Your task to perform on an android device: search for starred emails in the gmail app Image 0: 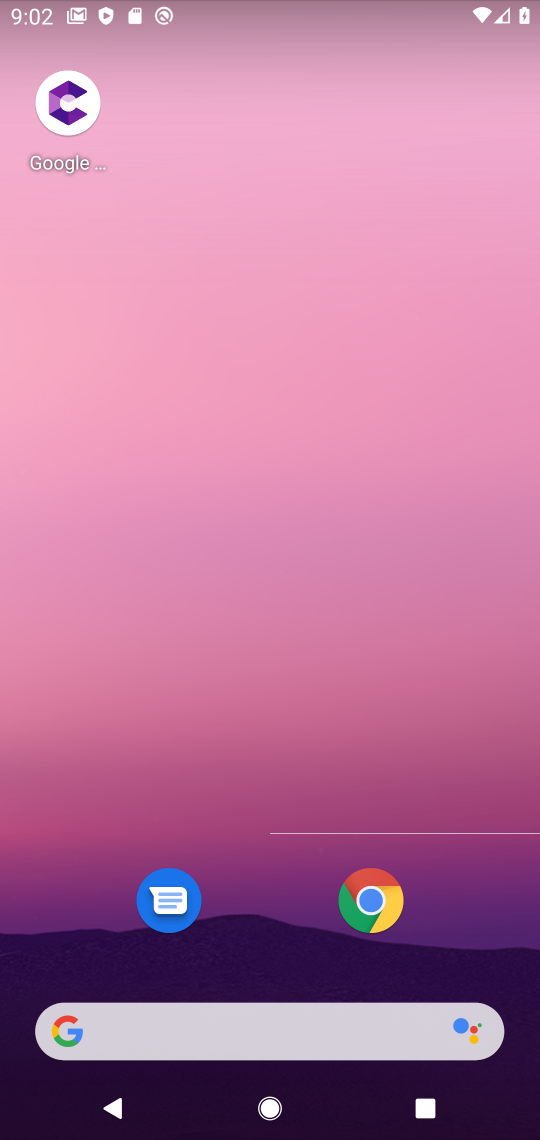
Step 0: drag from (244, 913) to (253, 295)
Your task to perform on an android device: search for starred emails in the gmail app Image 1: 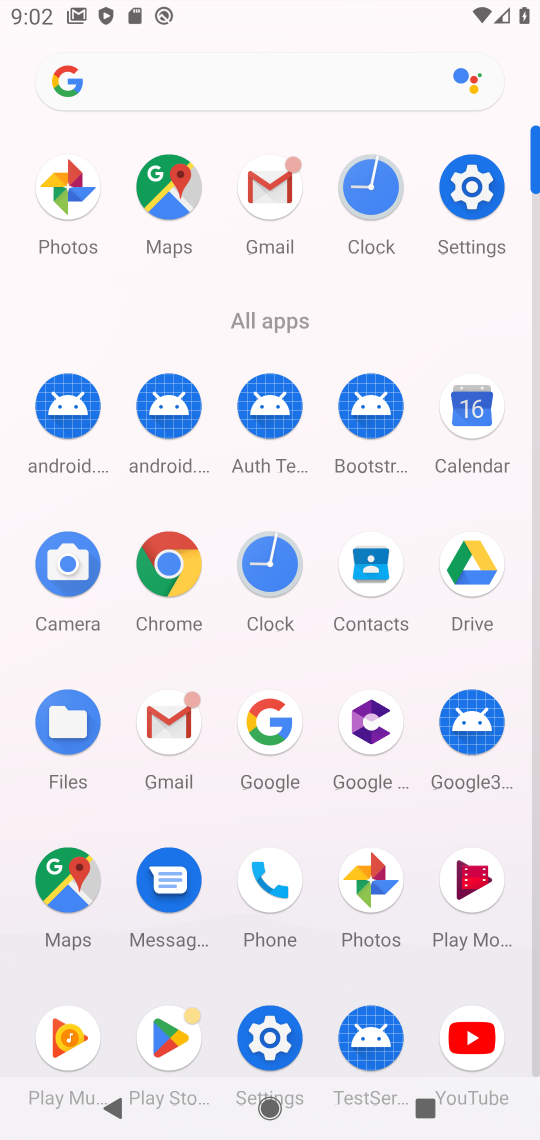
Step 1: click (282, 194)
Your task to perform on an android device: search for starred emails in the gmail app Image 2: 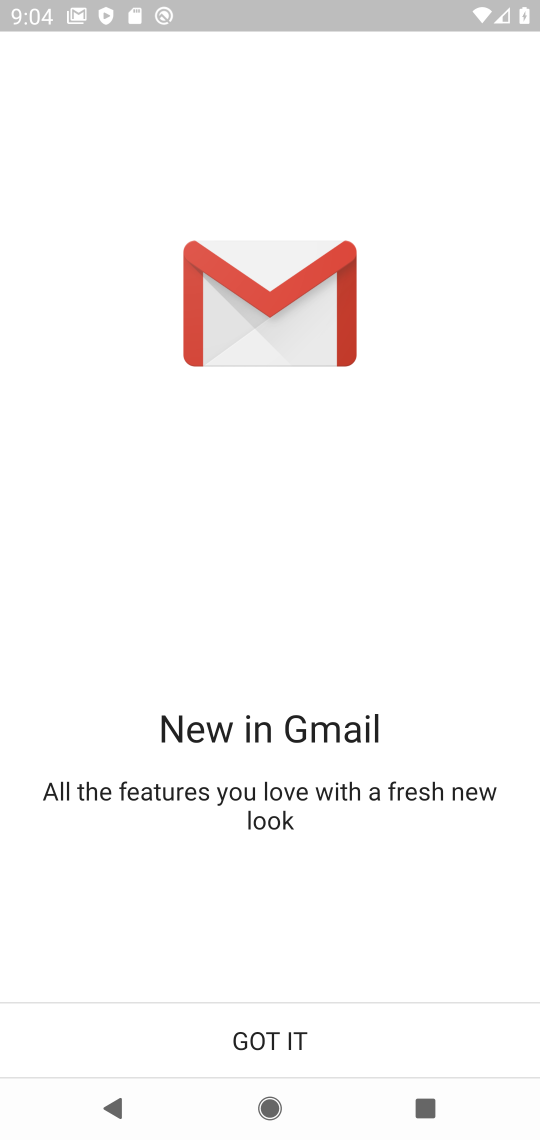
Step 2: click (232, 1024)
Your task to perform on an android device: search for starred emails in the gmail app Image 3: 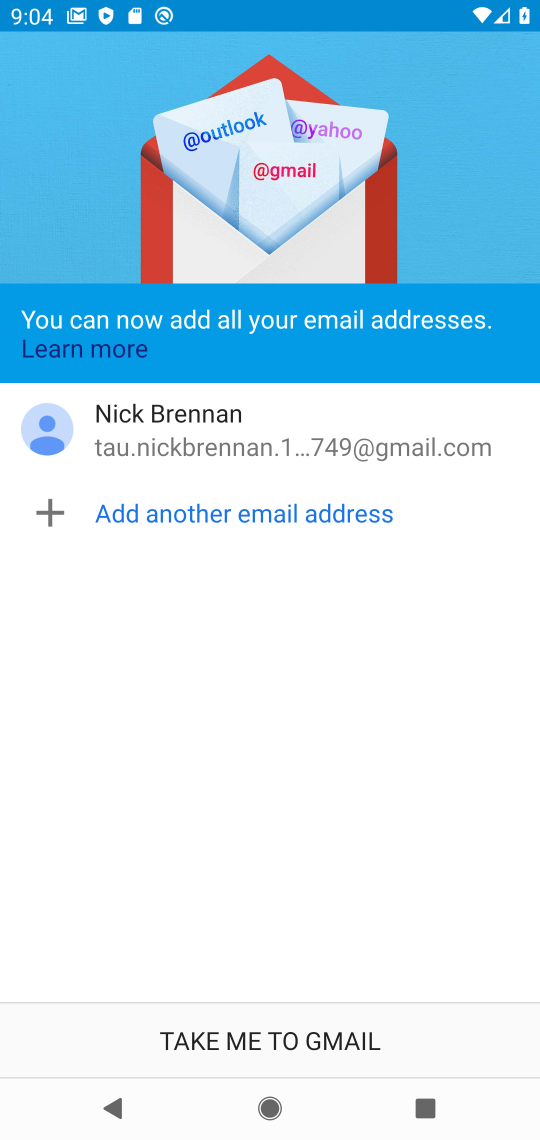
Step 3: click (134, 998)
Your task to perform on an android device: search for starred emails in the gmail app Image 4: 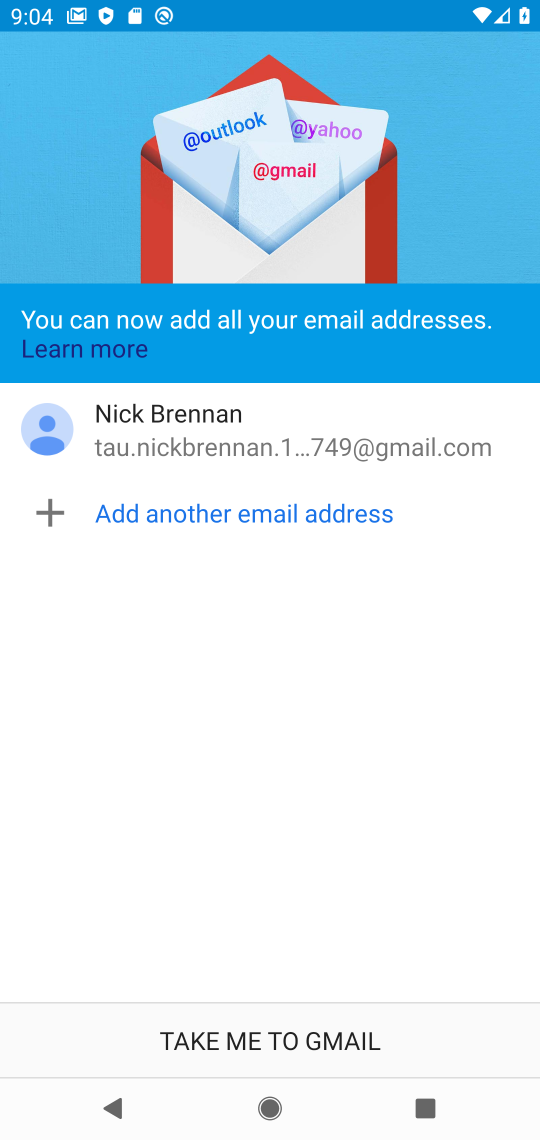
Step 4: click (198, 1016)
Your task to perform on an android device: search for starred emails in the gmail app Image 5: 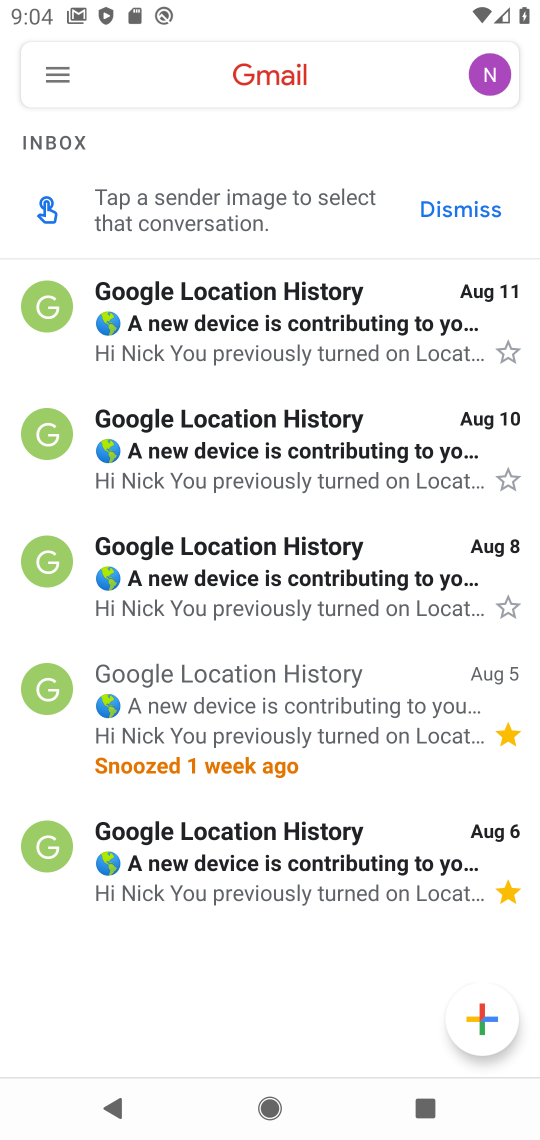
Step 5: click (52, 76)
Your task to perform on an android device: search for starred emails in the gmail app Image 6: 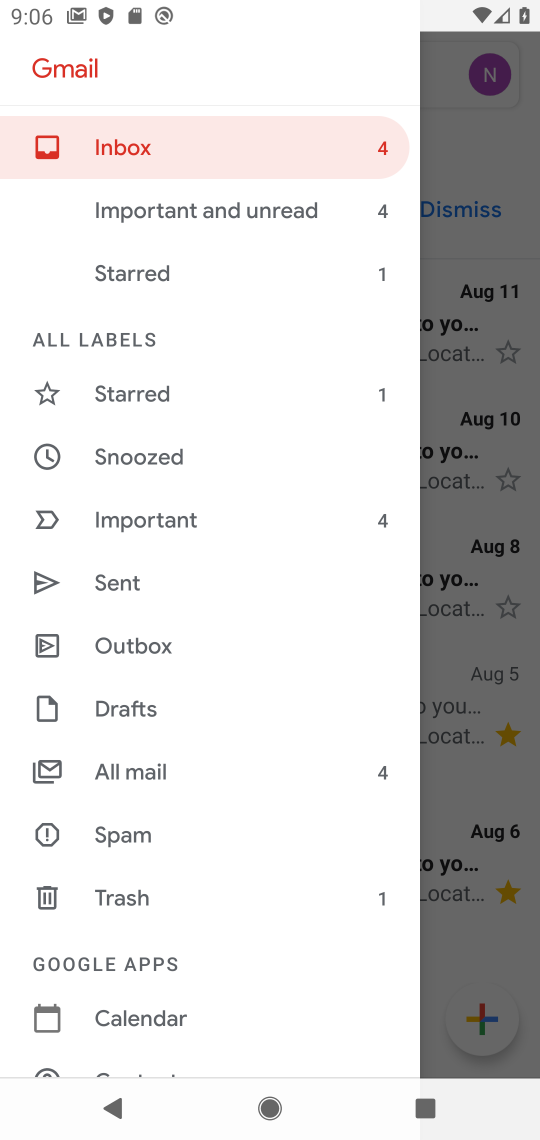
Step 6: click (117, 391)
Your task to perform on an android device: search for starred emails in the gmail app Image 7: 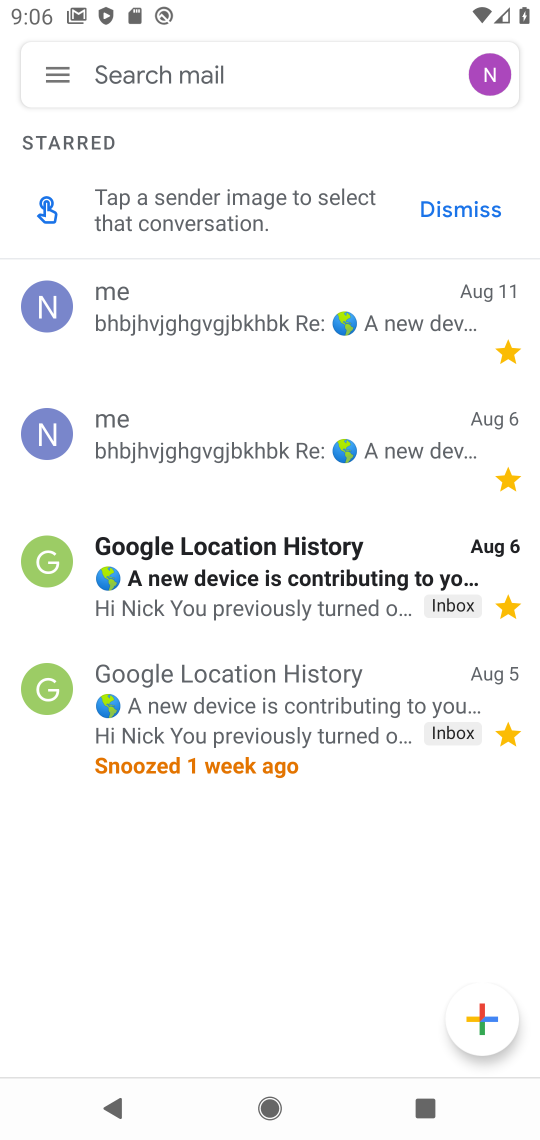
Step 7: task complete